Your task to perform on an android device: toggle wifi Image 0: 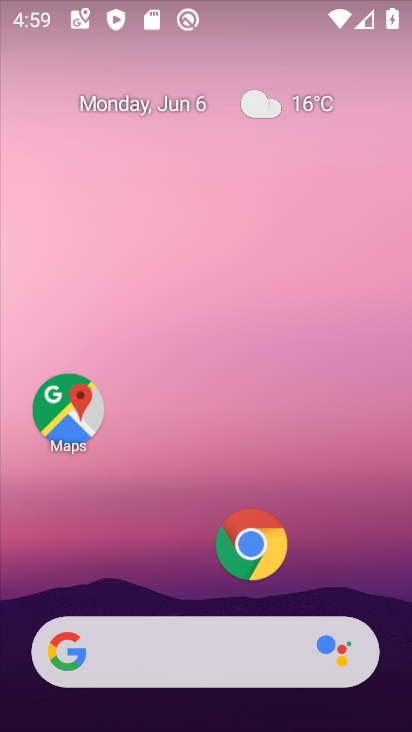
Step 0: drag from (196, 601) to (192, 48)
Your task to perform on an android device: toggle wifi Image 1: 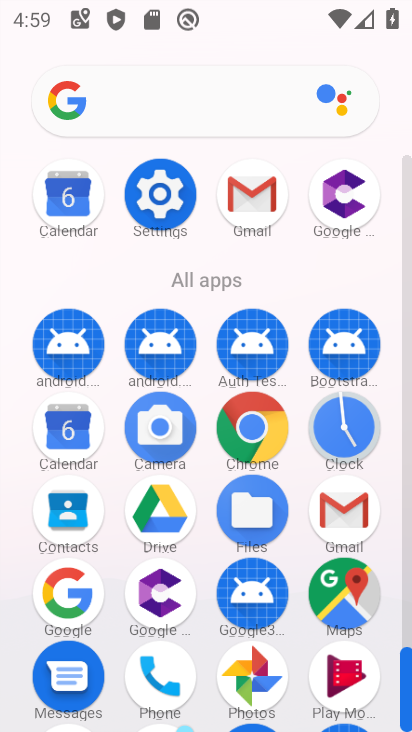
Step 1: click (157, 190)
Your task to perform on an android device: toggle wifi Image 2: 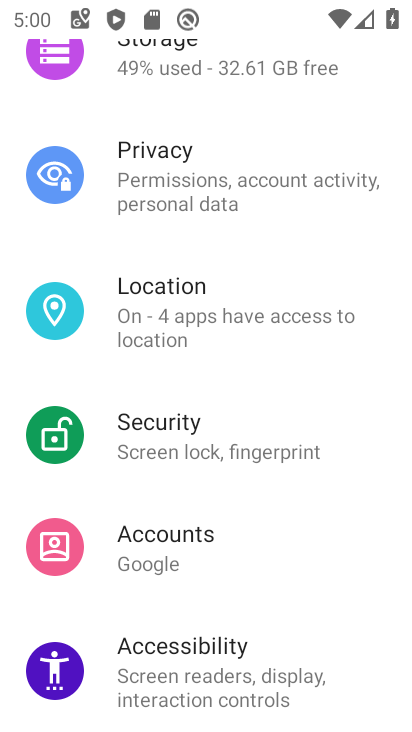
Step 2: drag from (190, 103) to (147, 720)
Your task to perform on an android device: toggle wifi Image 3: 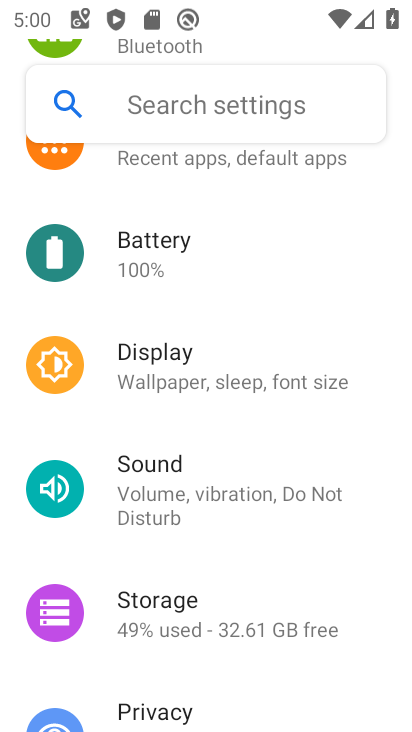
Step 3: drag from (201, 202) to (239, 728)
Your task to perform on an android device: toggle wifi Image 4: 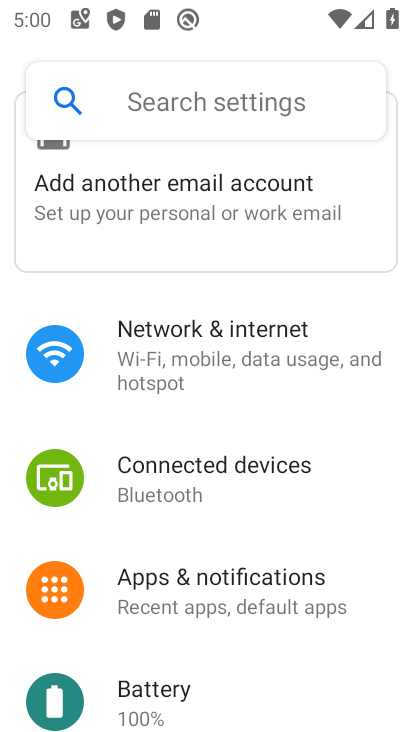
Step 4: click (212, 360)
Your task to perform on an android device: toggle wifi Image 5: 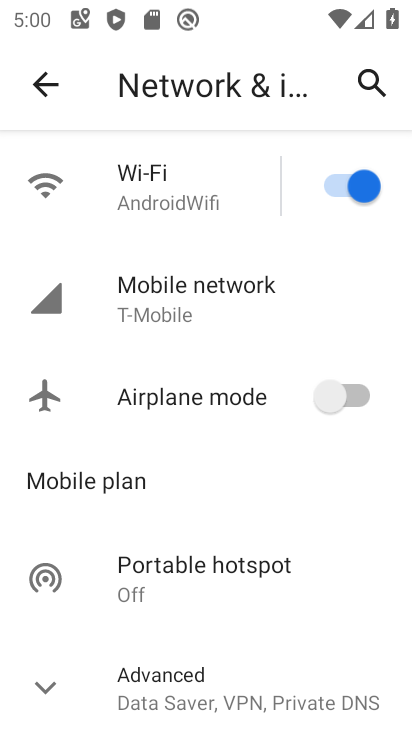
Step 5: click (193, 193)
Your task to perform on an android device: toggle wifi Image 6: 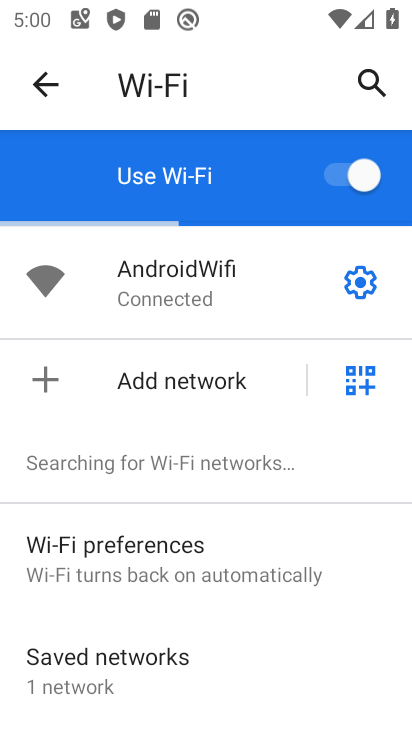
Step 6: click (340, 173)
Your task to perform on an android device: toggle wifi Image 7: 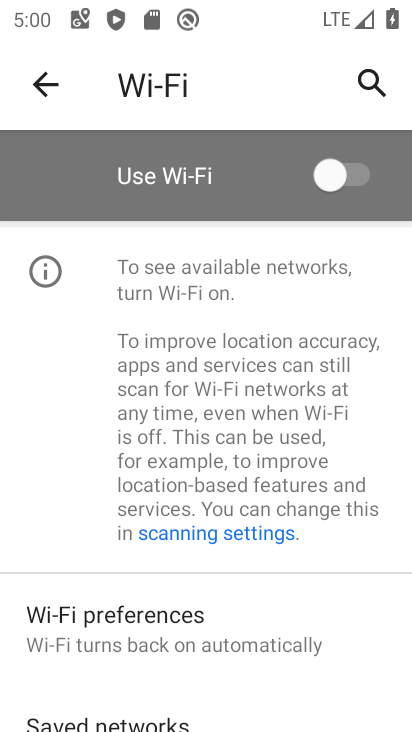
Step 7: task complete